Your task to perform on an android device: Go to location settings Image 0: 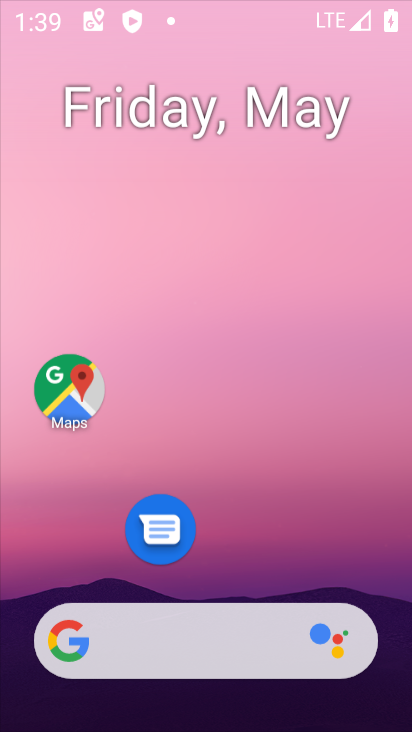
Step 0: click (389, 136)
Your task to perform on an android device: Go to location settings Image 1: 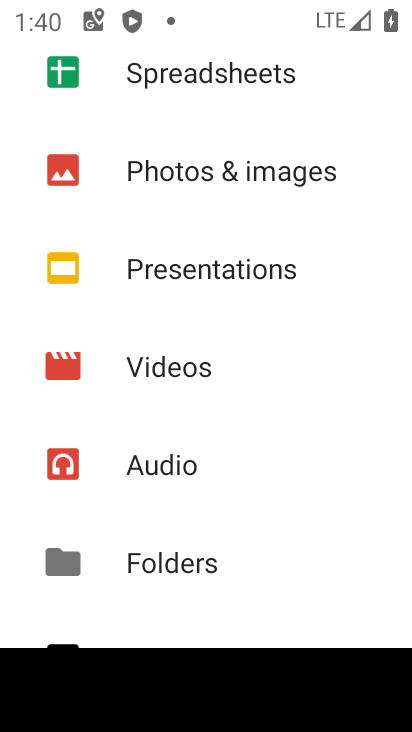
Step 1: drag from (216, 590) to (258, 107)
Your task to perform on an android device: Go to location settings Image 2: 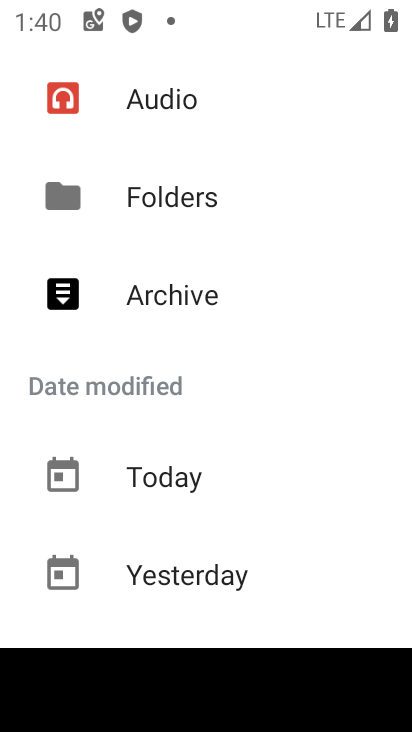
Step 2: press home button
Your task to perform on an android device: Go to location settings Image 3: 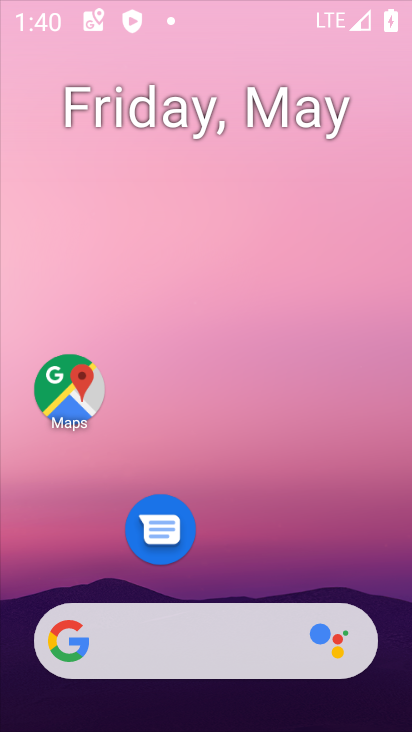
Step 3: drag from (189, 623) to (234, 30)
Your task to perform on an android device: Go to location settings Image 4: 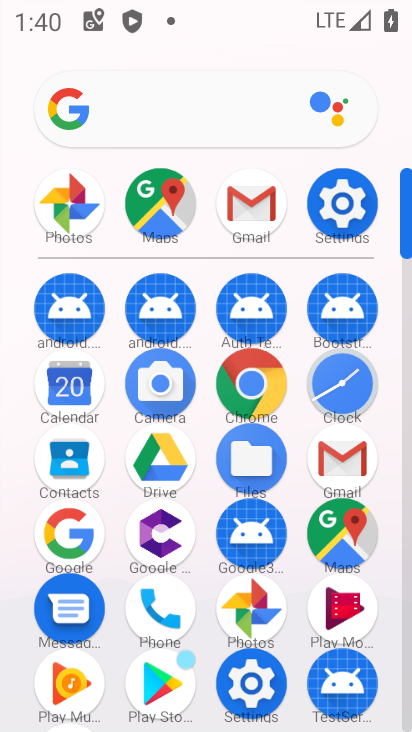
Step 4: click (323, 198)
Your task to perform on an android device: Go to location settings Image 5: 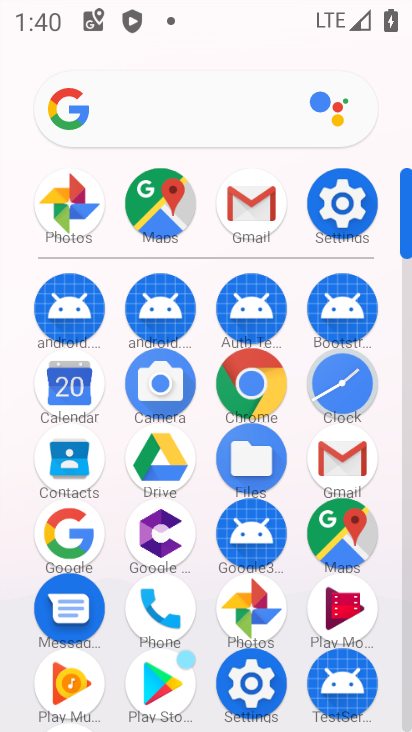
Step 5: click (323, 198)
Your task to perform on an android device: Go to location settings Image 6: 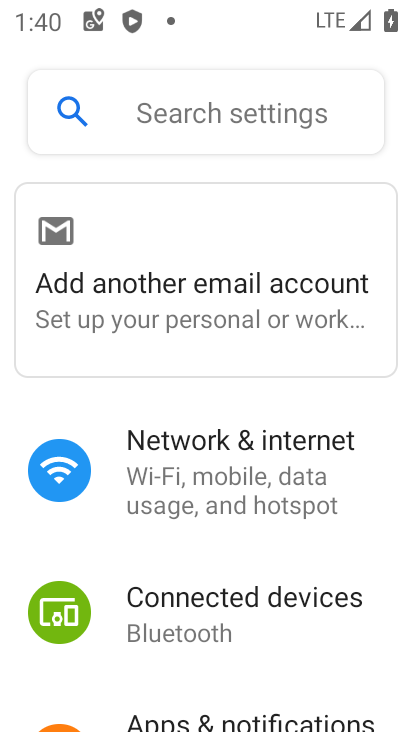
Step 6: drag from (257, 573) to (342, 166)
Your task to perform on an android device: Go to location settings Image 7: 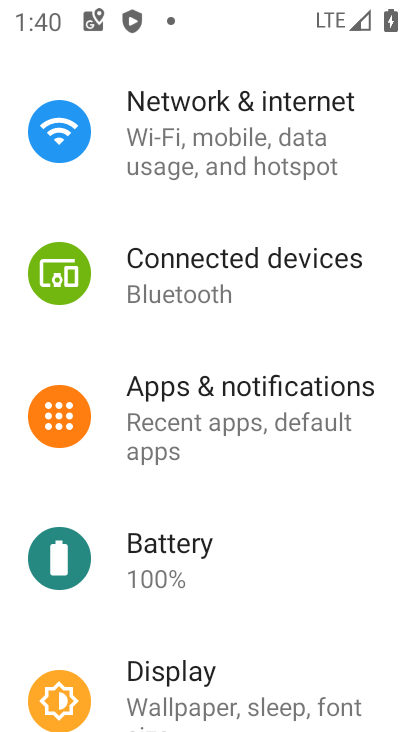
Step 7: drag from (207, 630) to (188, 56)
Your task to perform on an android device: Go to location settings Image 8: 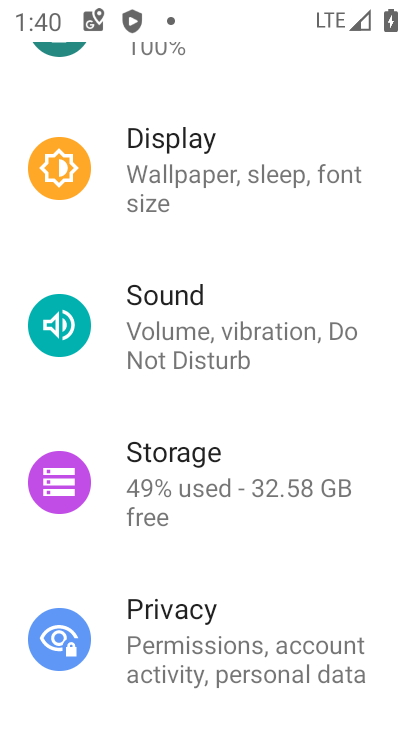
Step 8: drag from (274, 491) to (296, 182)
Your task to perform on an android device: Go to location settings Image 9: 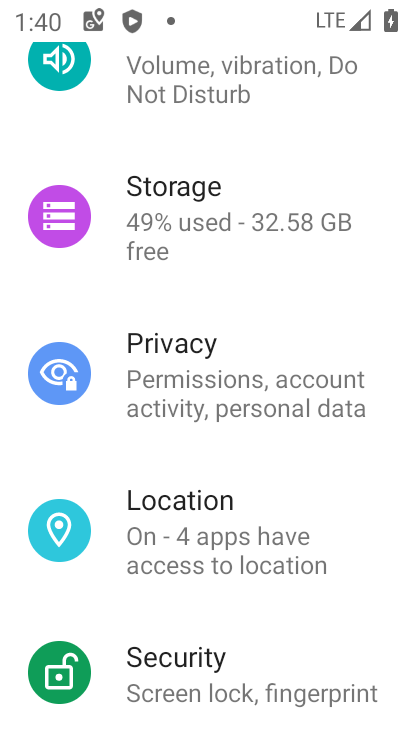
Step 9: click (213, 504)
Your task to perform on an android device: Go to location settings Image 10: 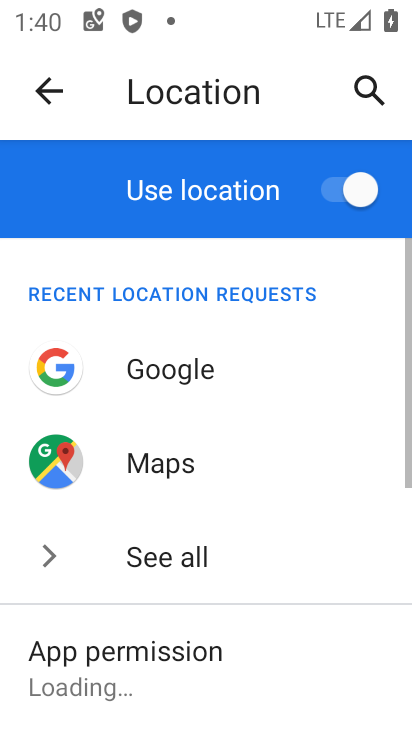
Step 10: drag from (158, 598) to (219, 200)
Your task to perform on an android device: Go to location settings Image 11: 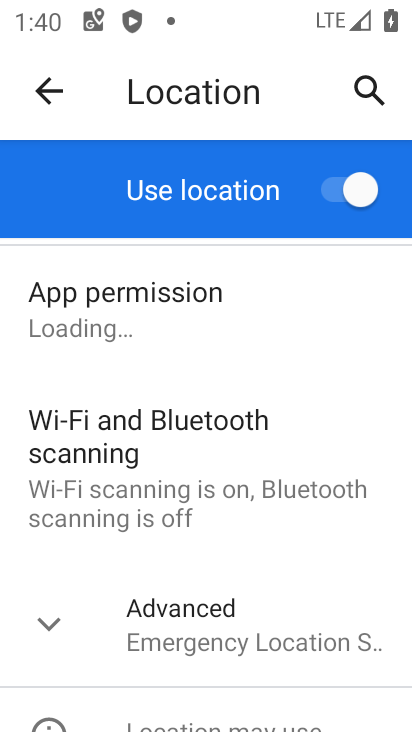
Step 11: drag from (199, 675) to (220, 231)
Your task to perform on an android device: Go to location settings Image 12: 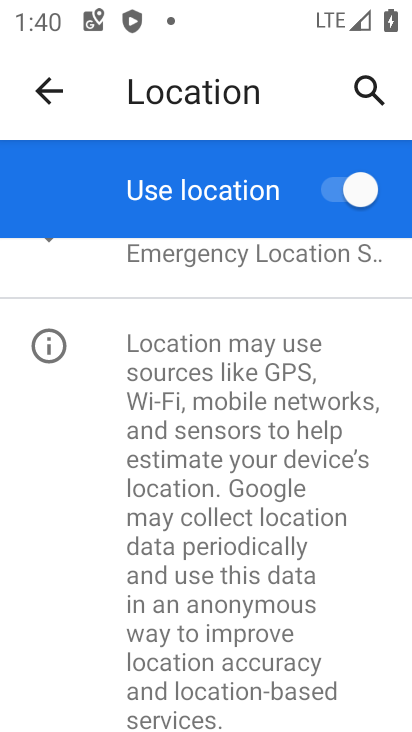
Step 12: click (157, 266)
Your task to perform on an android device: Go to location settings Image 13: 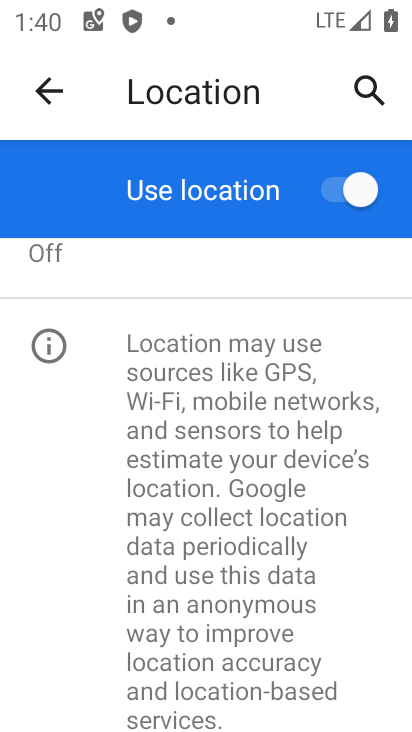
Step 13: task complete